Your task to perform on an android device: Go to settings Image 0: 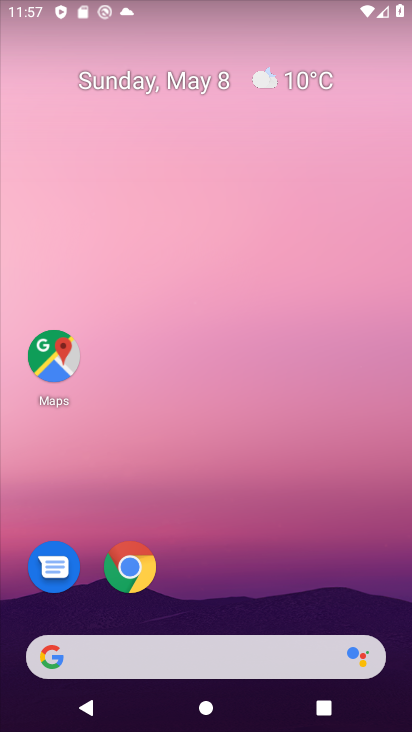
Step 0: drag from (229, 562) to (251, 65)
Your task to perform on an android device: Go to settings Image 1: 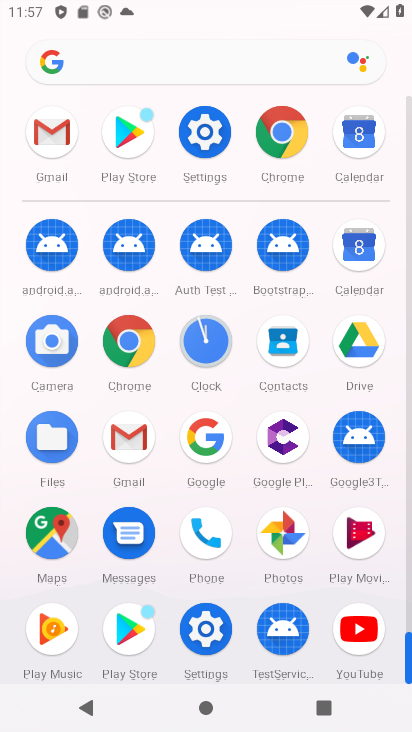
Step 1: click (213, 153)
Your task to perform on an android device: Go to settings Image 2: 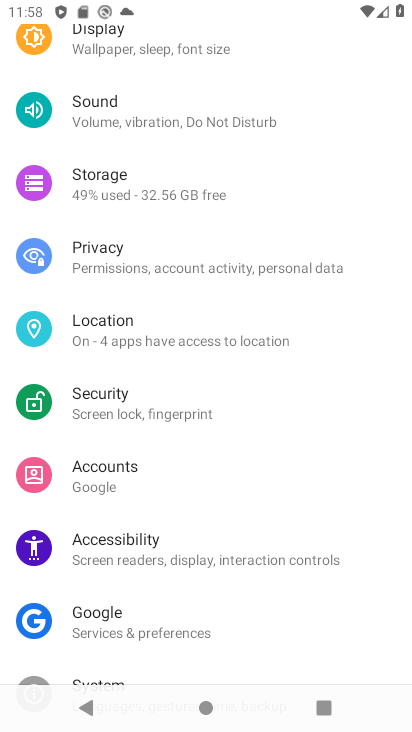
Step 2: task complete